Your task to perform on an android device: make emails show in primary in the gmail app Image 0: 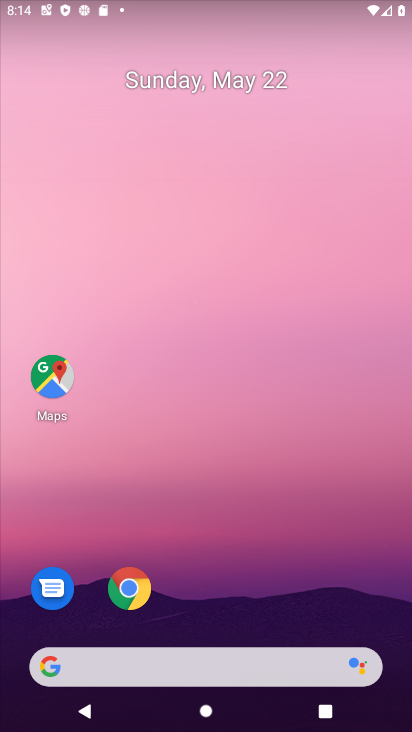
Step 0: drag from (242, 496) to (169, 2)
Your task to perform on an android device: make emails show in primary in the gmail app Image 1: 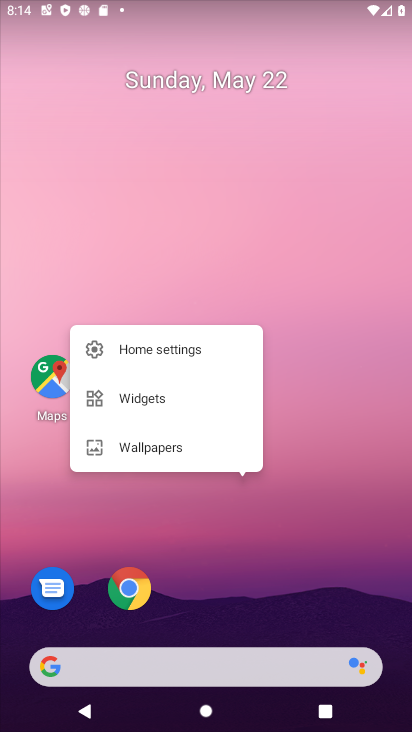
Step 1: click (306, 407)
Your task to perform on an android device: make emails show in primary in the gmail app Image 2: 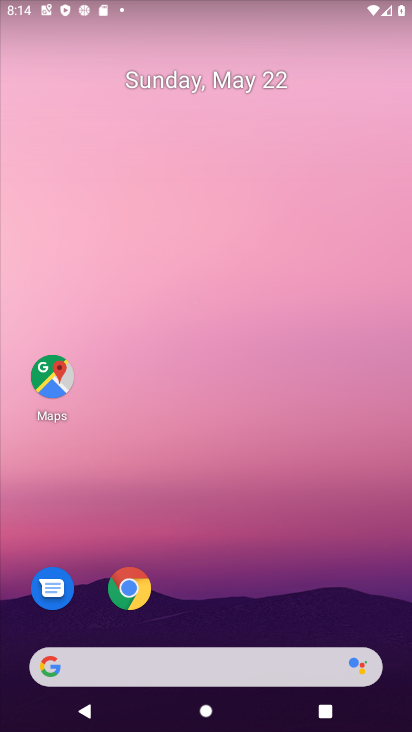
Step 2: drag from (240, 584) to (171, 2)
Your task to perform on an android device: make emails show in primary in the gmail app Image 3: 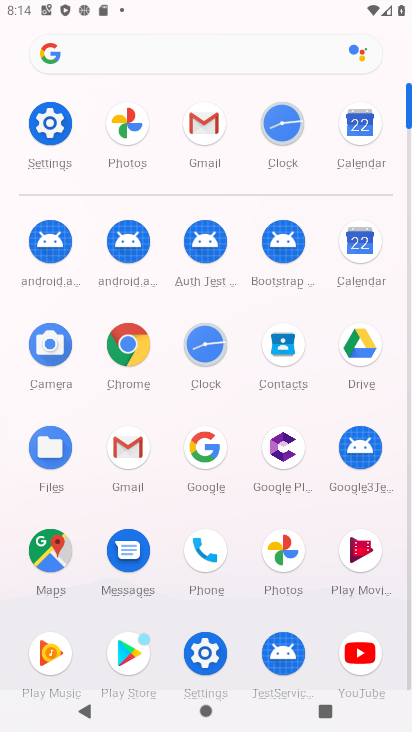
Step 3: click (196, 124)
Your task to perform on an android device: make emails show in primary in the gmail app Image 4: 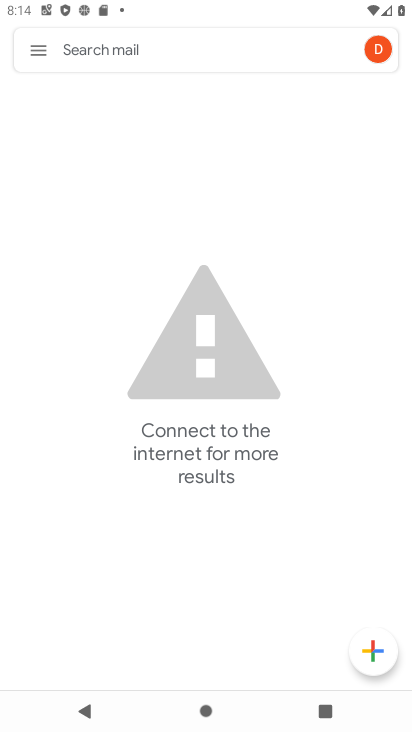
Step 4: click (36, 47)
Your task to perform on an android device: make emails show in primary in the gmail app Image 5: 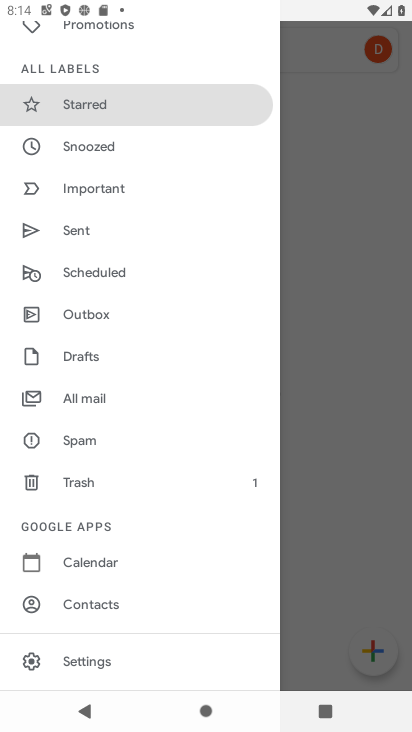
Step 5: drag from (128, 186) to (77, 709)
Your task to perform on an android device: make emails show in primary in the gmail app Image 6: 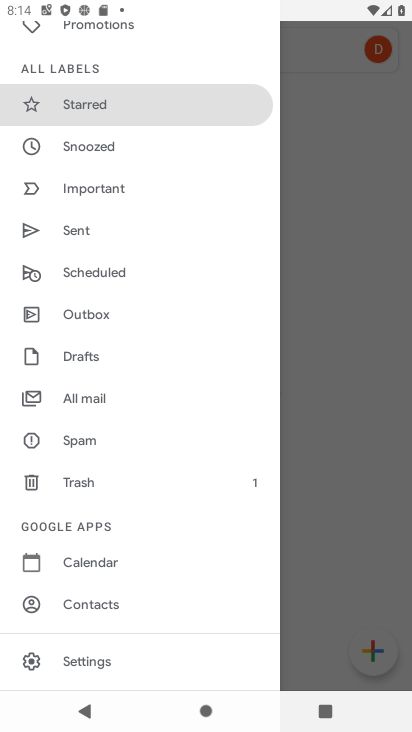
Step 6: drag from (169, 157) to (221, 610)
Your task to perform on an android device: make emails show in primary in the gmail app Image 7: 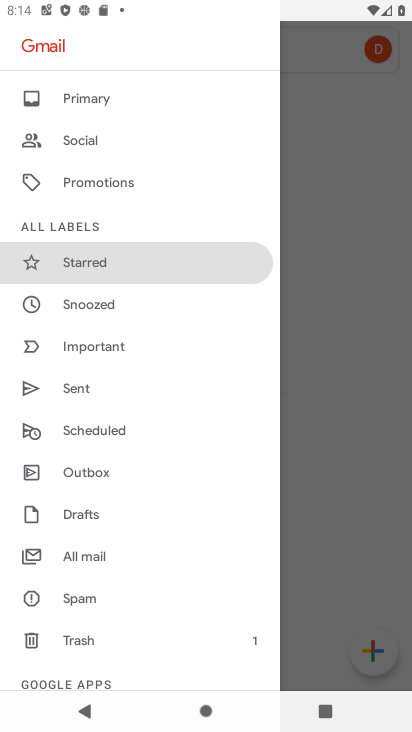
Step 7: click (79, 91)
Your task to perform on an android device: make emails show in primary in the gmail app Image 8: 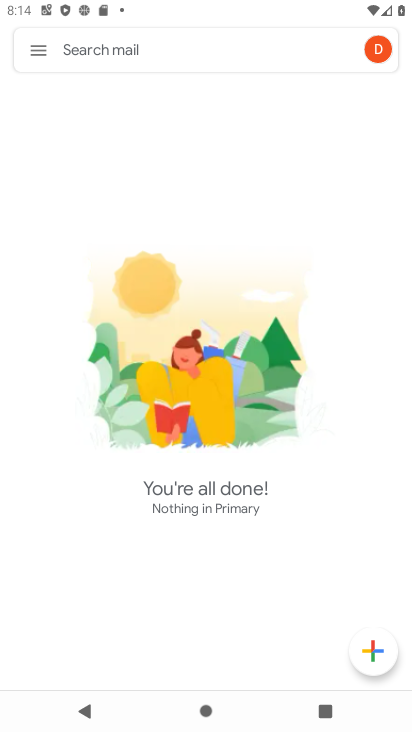
Step 8: task complete